Your task to perform on an android device: make emails show in primary in the gmail app Image 0: 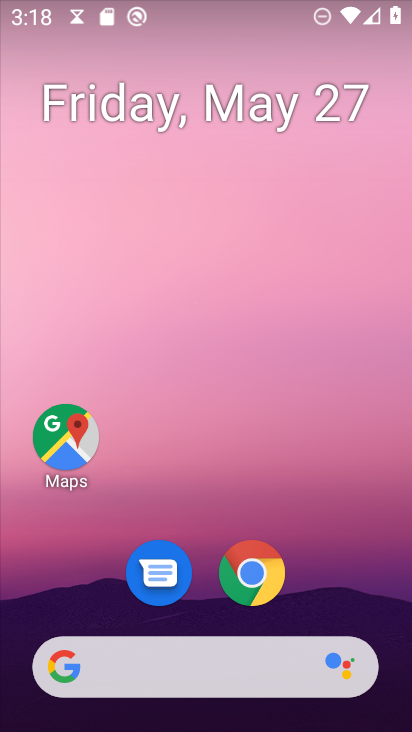
Step 0: drag from (315, 608) to (315, 11)
Your task to perform on an android device: make emails show in primary in the gmail app Image 1: 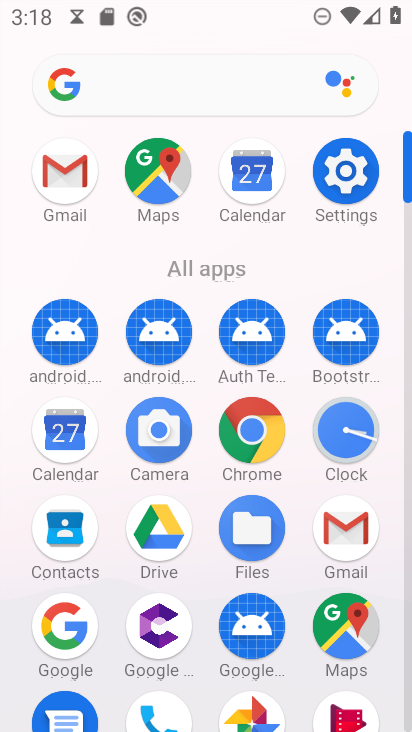
Step 1: click (342, 529)
Your task to perform on an android device: make emails show in primary in the gmail app Image 2: 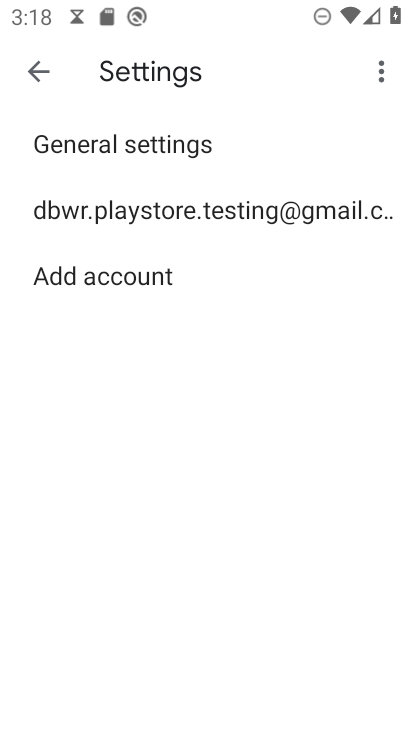
Step 2: click (95, 202)
Your task to perform on an android device: make emails show in primary in the gmail app Image 3: 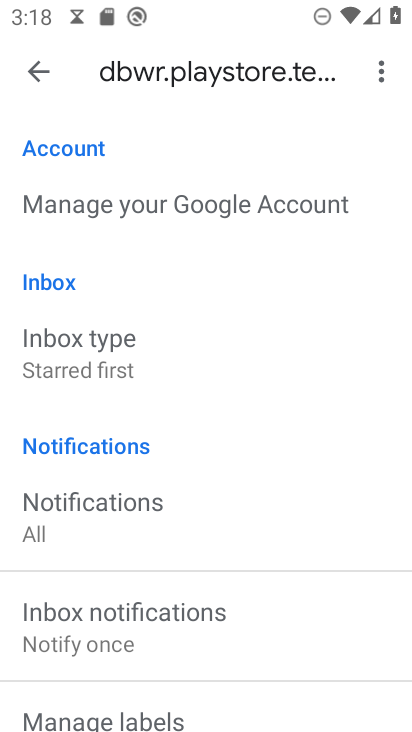
Step 3: click (124, 374)
Your task to perform on an android device: make emails show in primary in the gmail app Image 4: 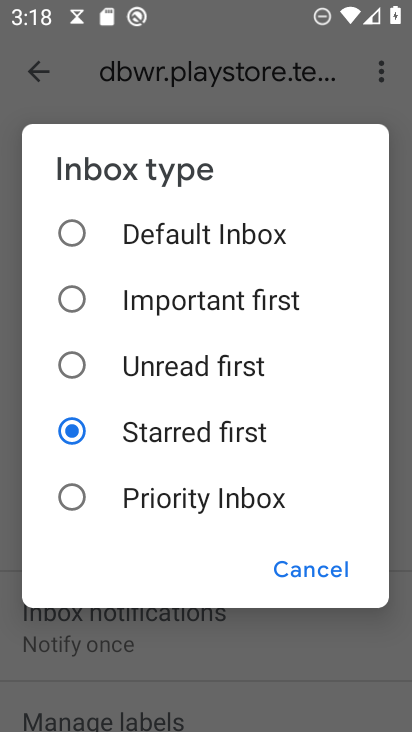
Step 4: click (212, 234)
Your task to perform on an android device: make emails show in primary in the gmail app Image 5: 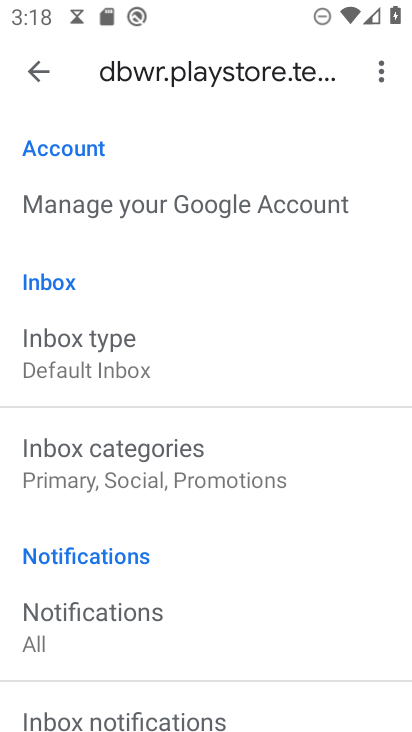
Step 5: task complete